Your task to perform on an android device: Open Google Maps and go to "Timeline" Image 0: 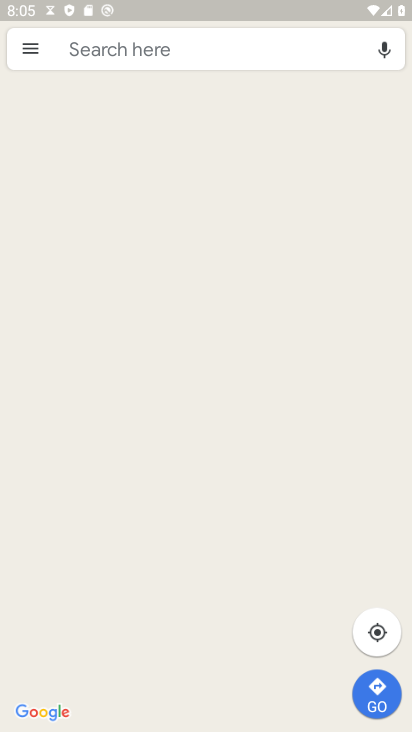
Step 0: click (301, 633)
Your task to perform on an android device: Open Google Maps and go to "Timeline" Image 1: 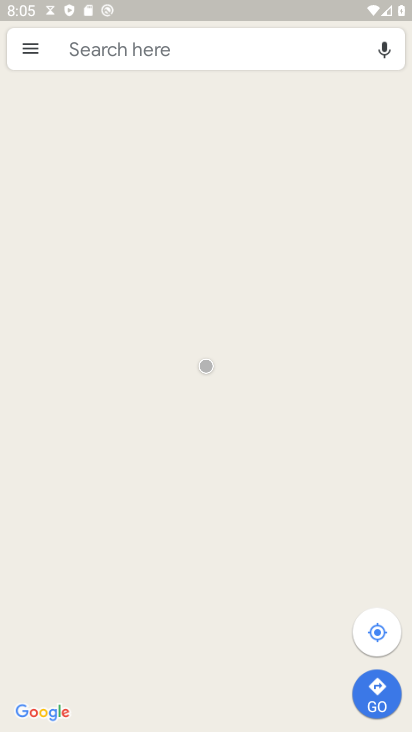
Step 1: press home button
Your task to perform on an android device: Open Google Maps and go to "Timeline" Image 2: 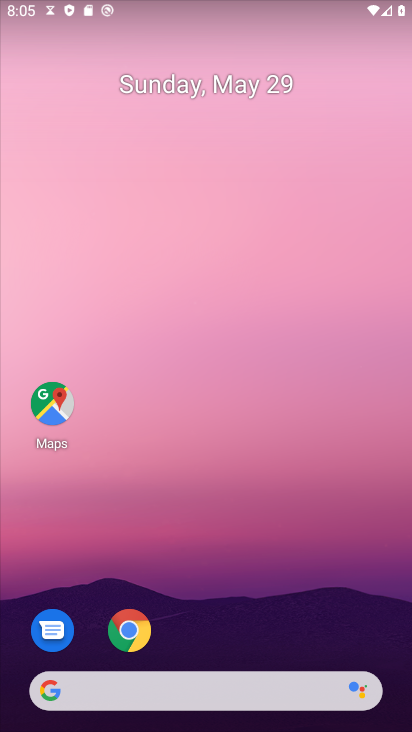
Step 2: click (57, 414)
Your task to perform on an android device: Open Google Maps and go to "Timeline" Image 3: 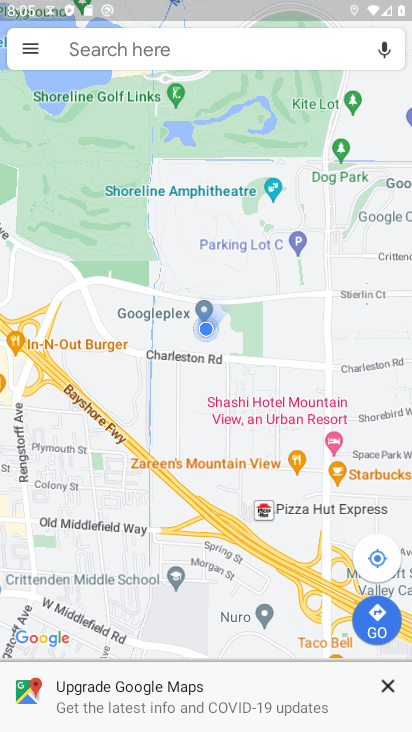
Step 3: click (22, 48)
Your task to perform on an android device: Open Google Maps and go to "Timeline" Image 4: 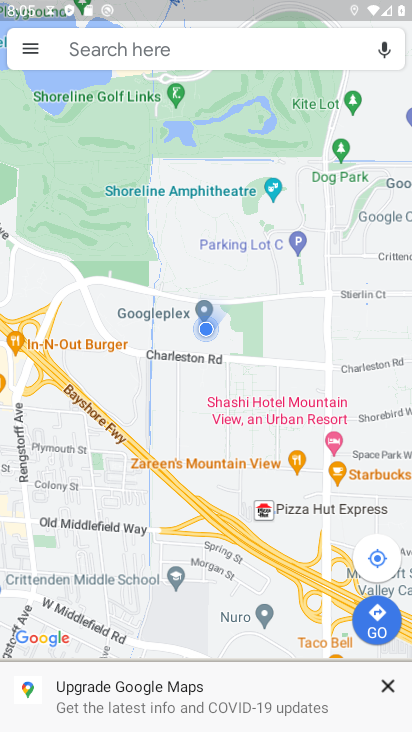
Step 4: click (22, 48)
Your task to perform on an android device: Open Google Maps and go to "Timeline" Image 5: 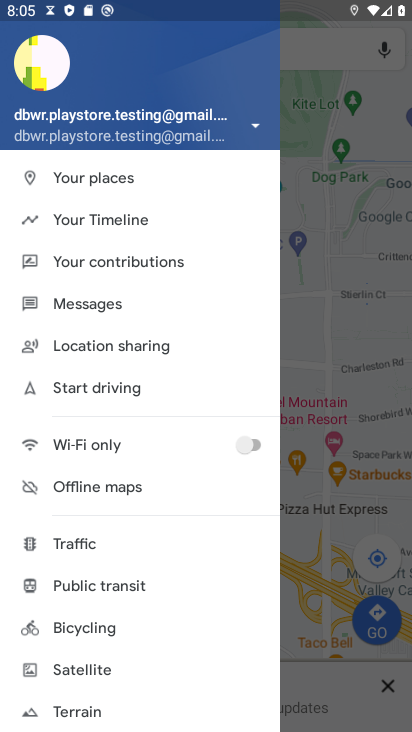
Step 5: click (117, 220)
Your task to perform on an android device: Open Google Maps and go to "Timeline" Image 6: 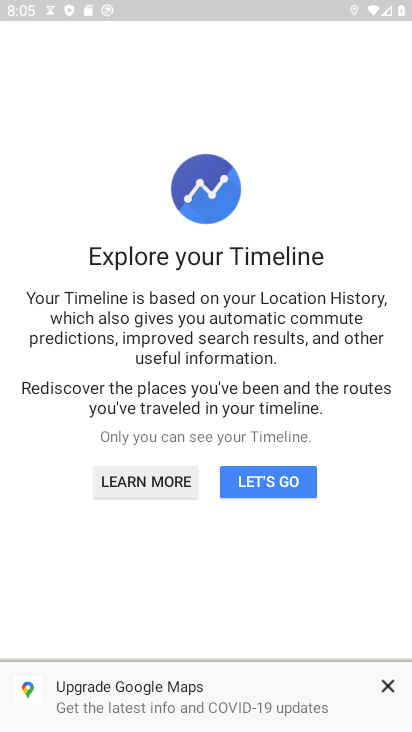
Step 6: click (258, 485)
Your task to perform on an android device: Open Google Maps and go to "Timeline" Image 7: 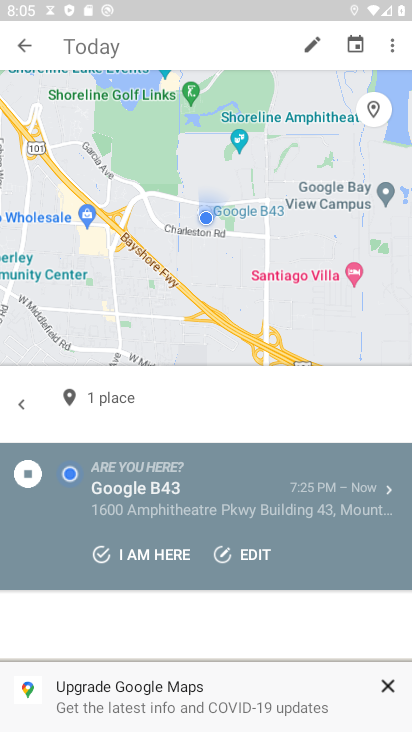
Step 7: task complete